Your task to perform on an android device: Do I have any events tomorrow? Image 0: 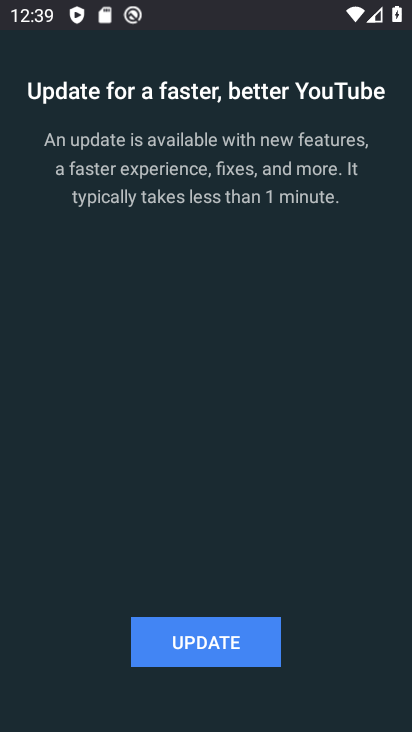
Step 0: press home button
Your task to perform on an android device: Do I have any events tomorrow? Image 1: 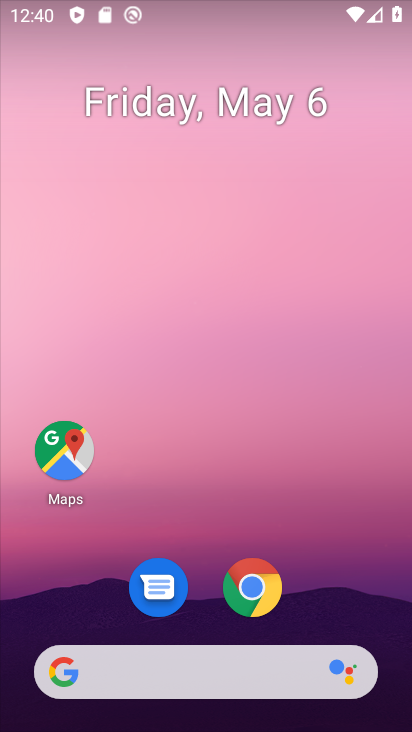
Step 1: drag from (73, 526) to (268, 124)
Your task to perform on an android device: Do I have any events tomorrow? Image 2: 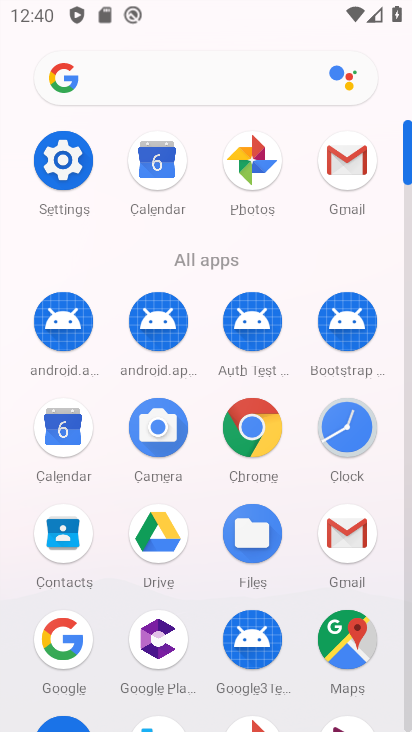
Step 2: click (69, 439)
Your task to perform on an android device: Do I have any events tomorrow? Image 3: 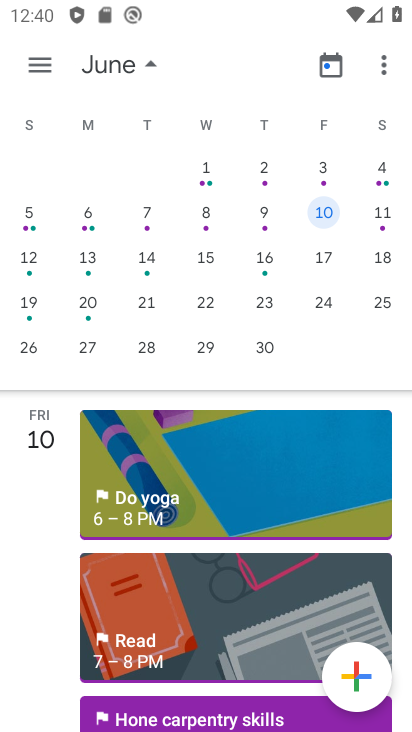
Step 3: drag from (69, 226) to (317, 256)
Your task to perform on an android device: Do I have any events tomorrow? Image 4: 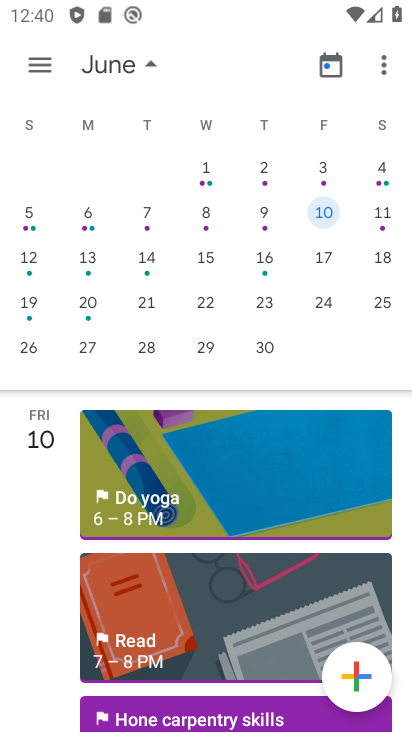
Step 4: drag from (149, 197) to (406, 182)
Your task to perform on an android device: Do I have any events tomorrow? Image 5: 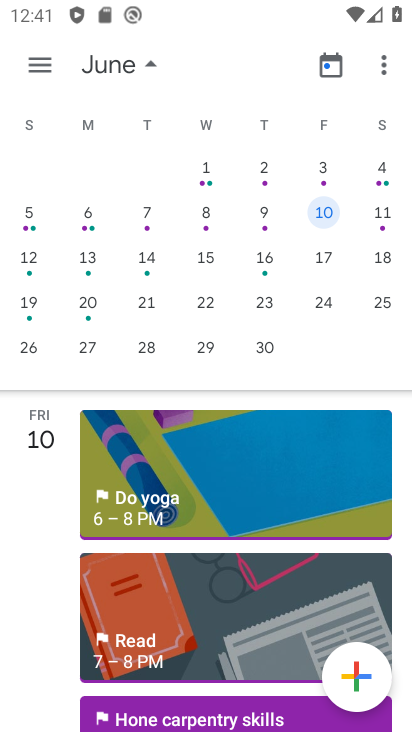
Step 5: drag from (0, 174) to (385, 182)
Your task to perform on an android device: Do I have any events tomorrow? Image 6: 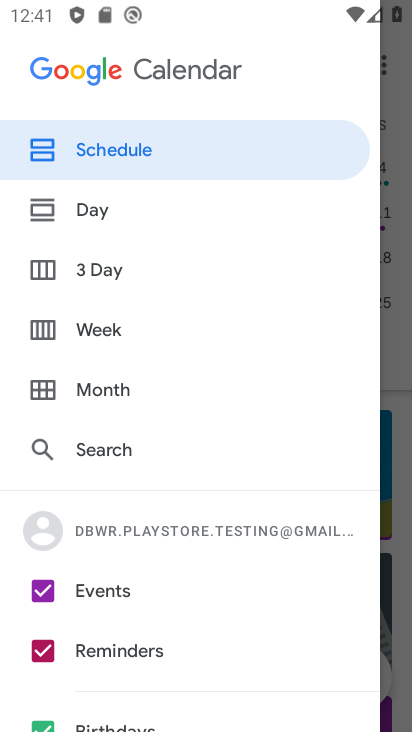
Step 6: click (398, 397)
Your task to perform on an android device: Do I have any events tomorrow? Image 7: 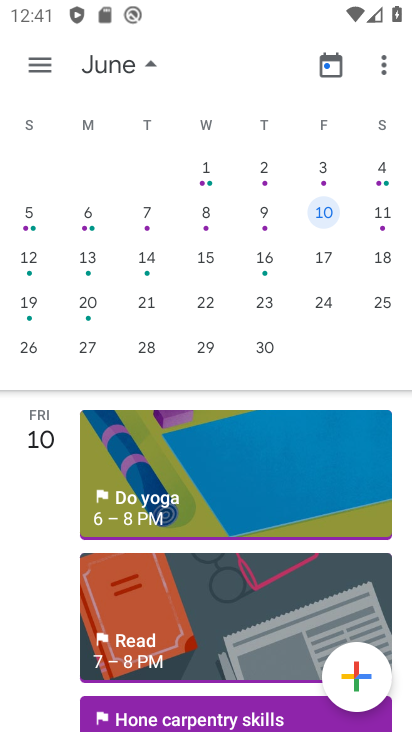
Step 7: drag from (162, 299) to (389, 298)
Your task to perform on an android device: Do I have any events tomorrow? Image 8: 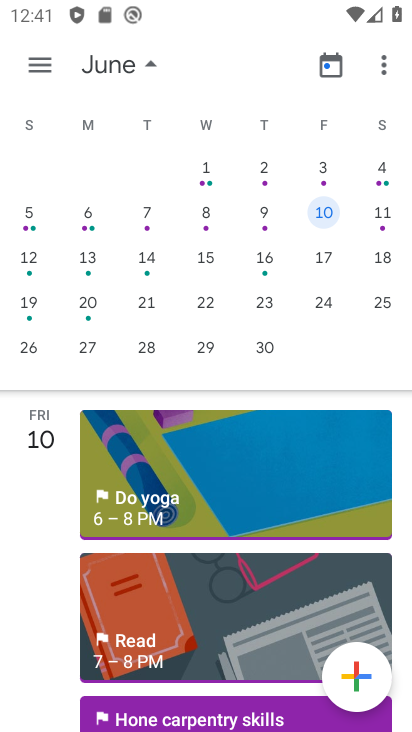
Step 8: drag from (18, 217) to (288, 207)
Your task to perform on an android device: Do I have any events tomorrow? Image 9: 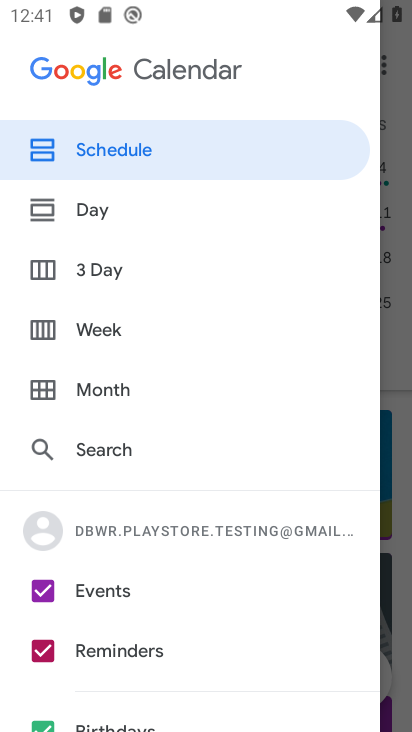
Step 9: click (390, 360)
Your task to perform on an android device: Do I have any events tomorrow? Image 10: 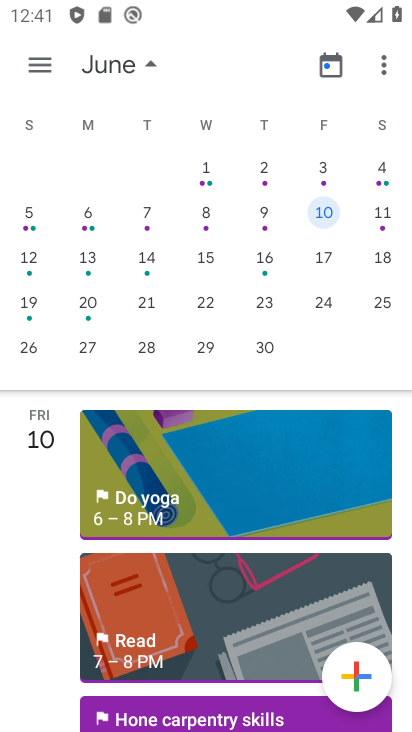
Step 10: drag from (100, 284) to (390, 280)
Your task to perform on an android device: Do I have any events tomorrow? Image 11: 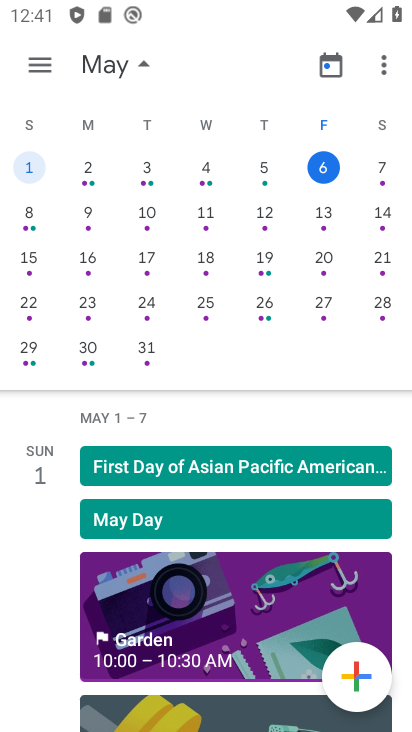
Step 11: click (316, 165)
Your task to perform on an android device: Do I have any events tomorrow? Image 12: 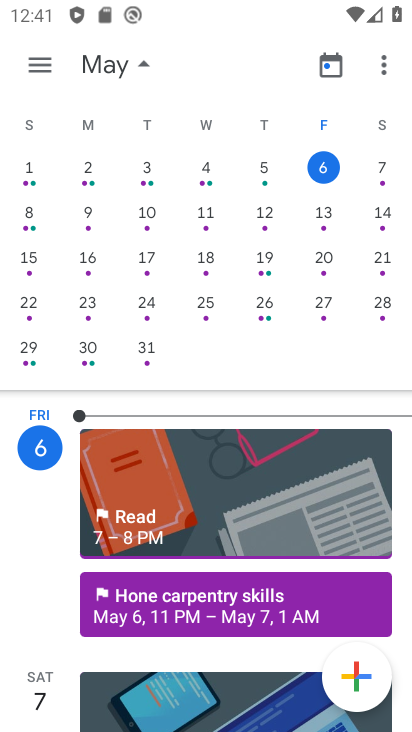
Step 12: task complete